Your task to perform on an android device: set the timer Image 0: 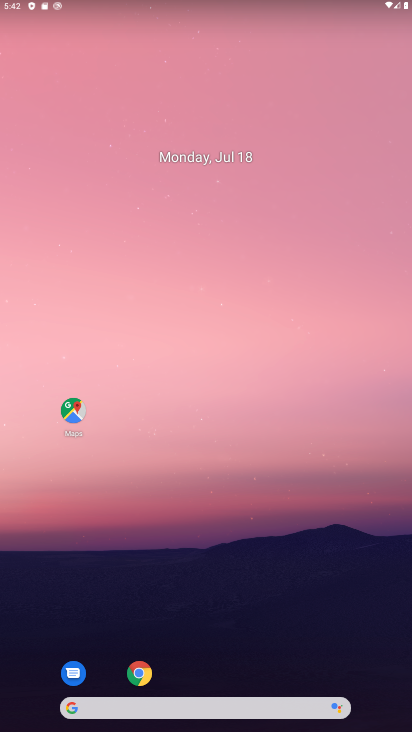
Step 0: drag from (252, 628) to (337, 130)
Your task to perform on an android device: set the timer Image 1: 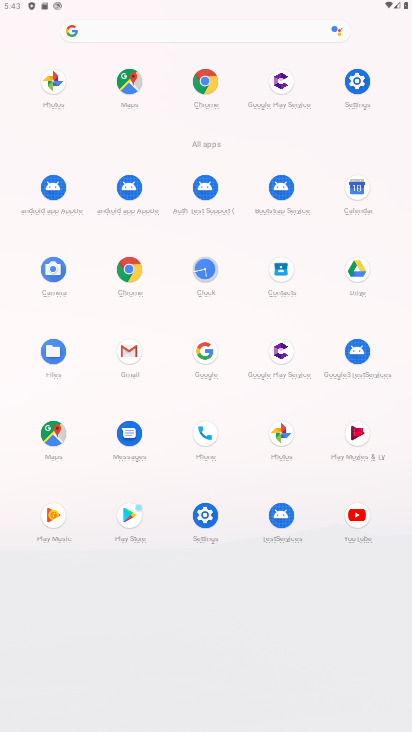
Step 1: click (210, 263)
Your task to perform on an android device: set the timer Image 2: 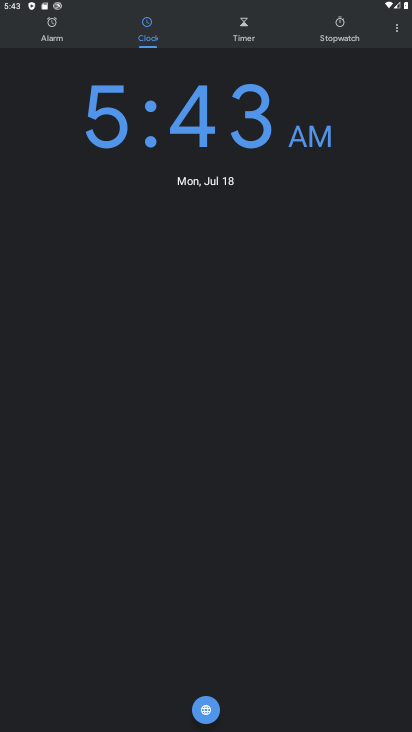
Step 2: click (209, 710)
Your task to perform on an android device: set the timer Image 3: 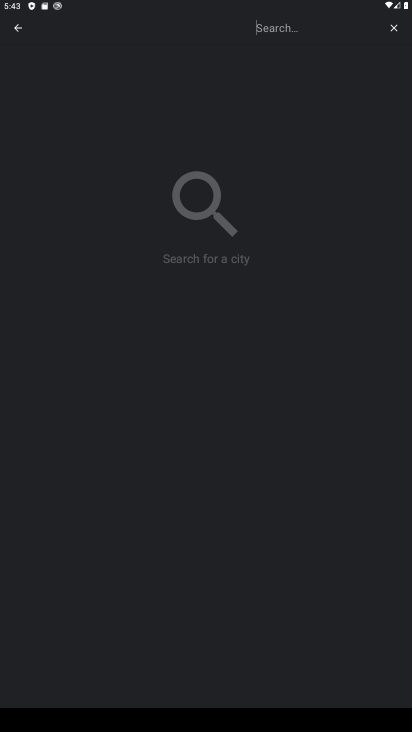
Step 3: click (16, 26)
Your task to perform on an android device: set the timer Image 4: 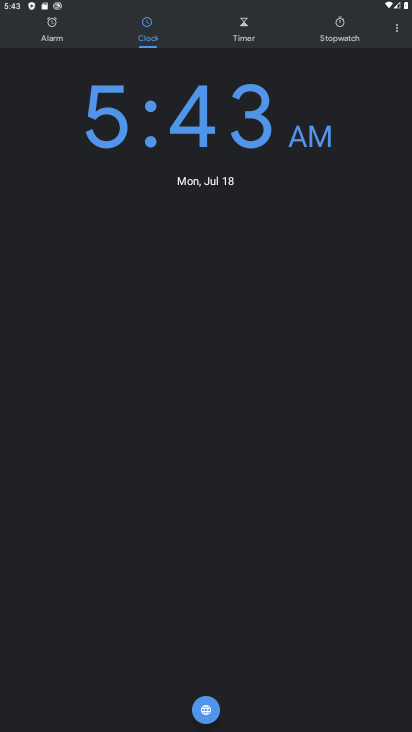
Step 4: click (244, 26)
Your task to perform on an android device: set the timer Image 5: 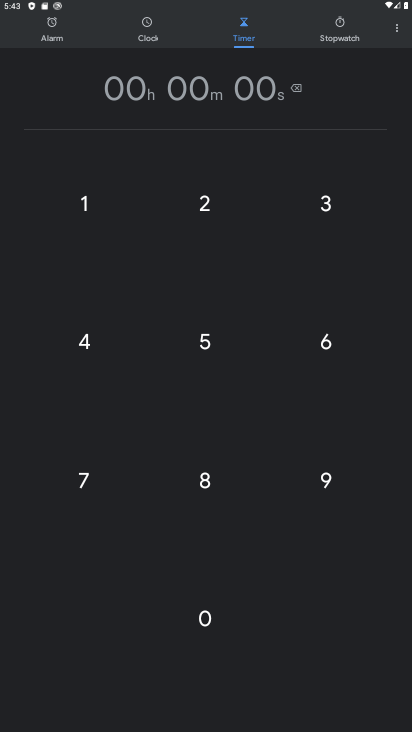
Step 5: click (200, 335)
Your task to perform on an android device: set the timer Image 6: 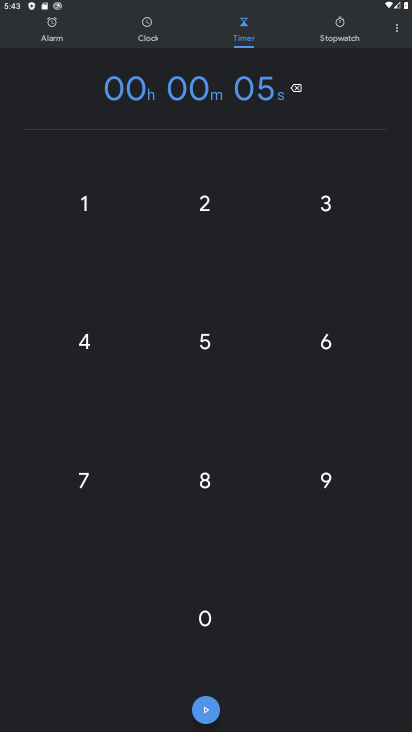
Step 6: click (316, 341)
Your task to perform on an android device: set the timer Image 7: 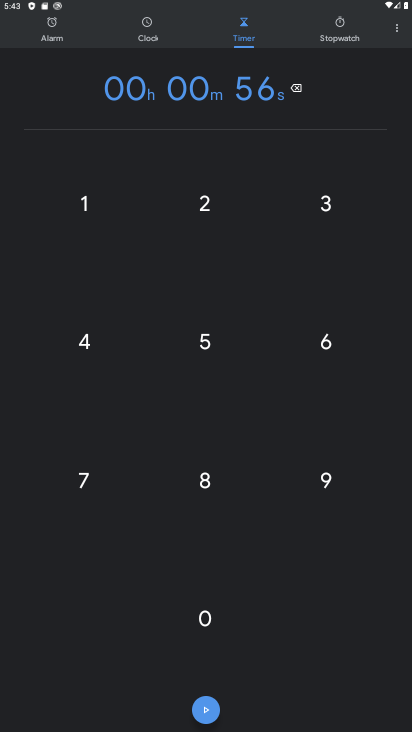
Step 7: click (323, 201)
Your task to perform on an android device: set the timer Image 8: 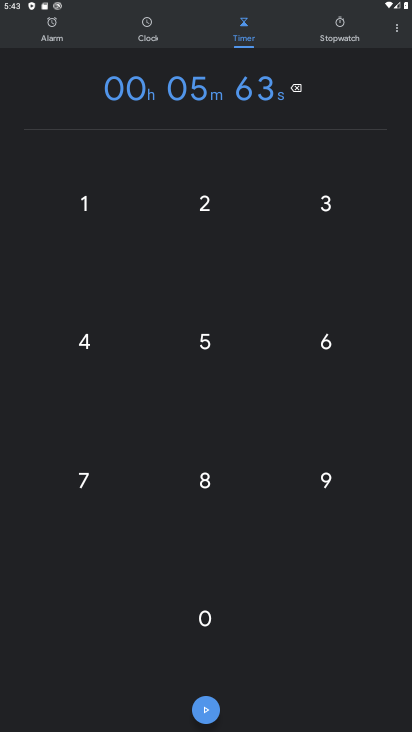
Step 8: click (93, 205)
Your task to perform on an android device: set the timer Image 9: 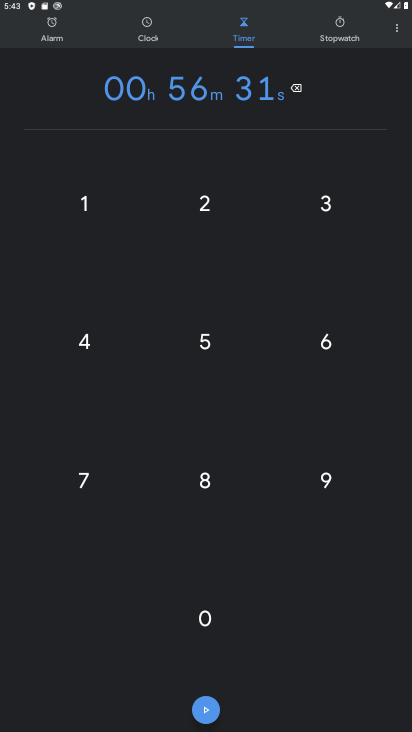
Step 9: click (93, 205)
Your task to perform on an android device: set the timer Image 10: 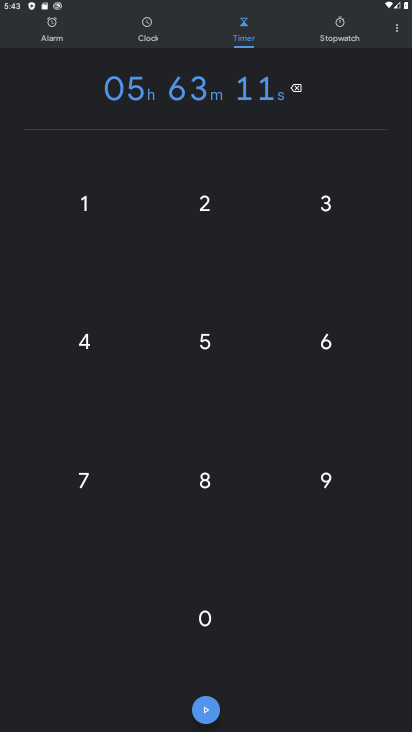
Step 10: task complete